Your task to perform on an android device: open a new tab in the chrome app Image 0: 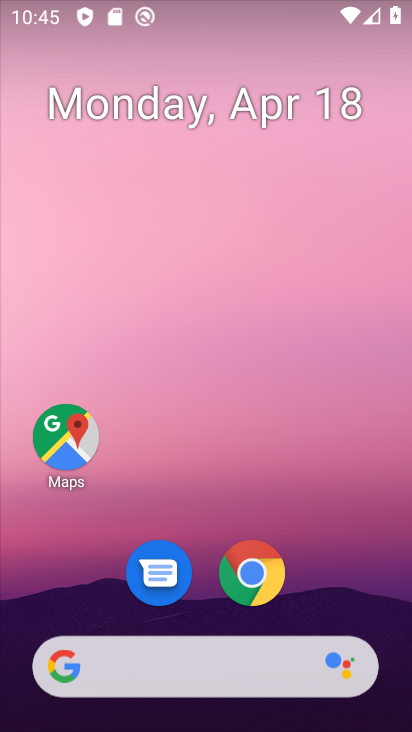
Step 0: click (258, 569)
Your task to perform on an android device: open a new tab in the chrome app Image 1: 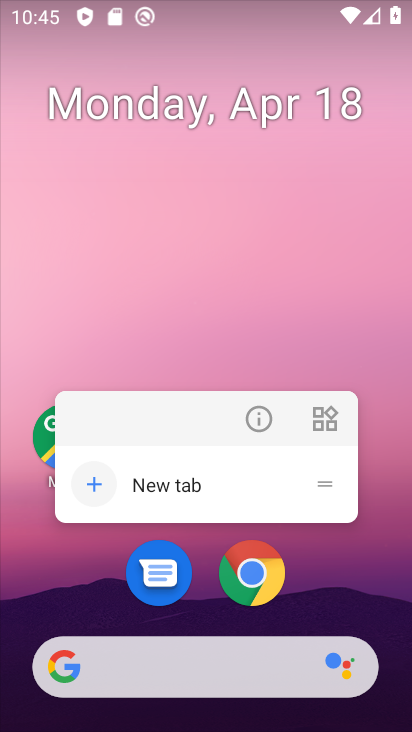
Step 1: click (349, 581)
Your task to perform on an android device: open a new tab in the chrome app Image 2: 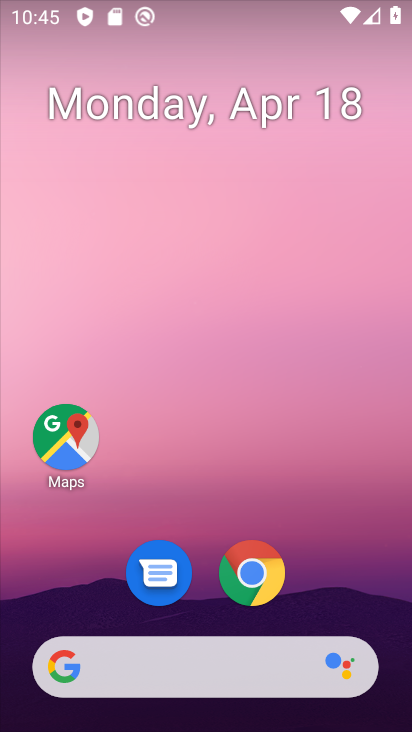
Step 2: drag from (366, 581) to (340, 63)
Your task to perform on an android device: open a new tab in the chrome app Image 3: 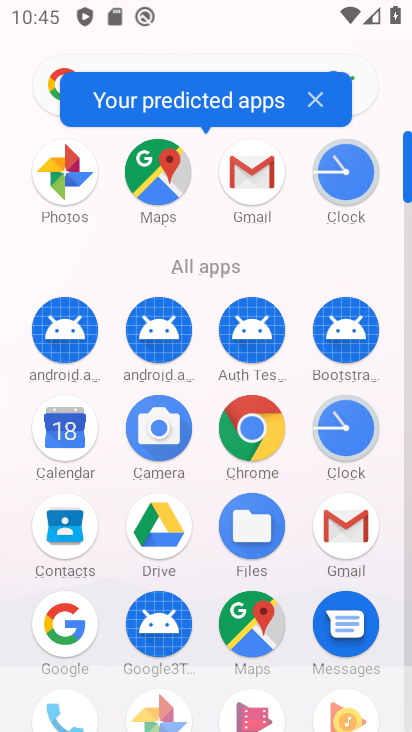
Step 3: click (256, 432)
Your task to perform on an android device: open a new tab in the chrome app Image 4: 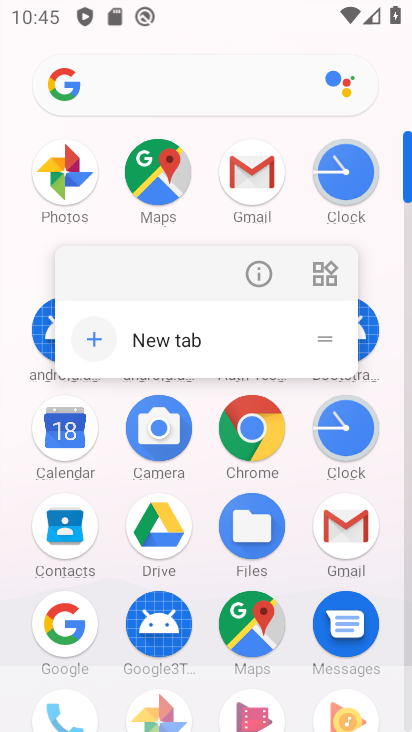
Step 4: click (267, 435)
Your task to perform on an android device: open a new tab in the chrome app Image 5: 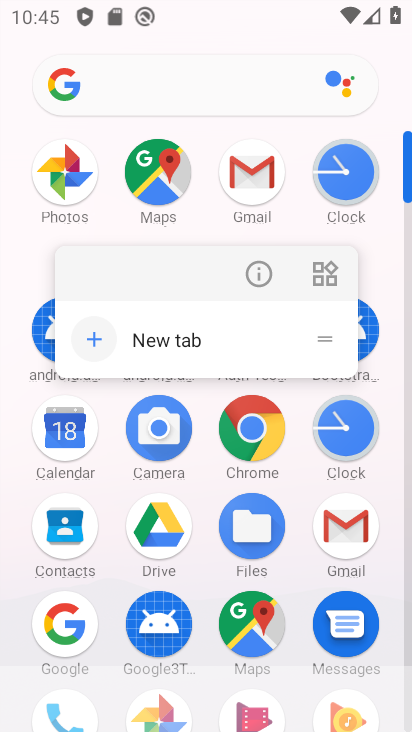
Step 5: click (267, 435)
Your task to perform on an android device: open a new tab in the chrome app Image 6: 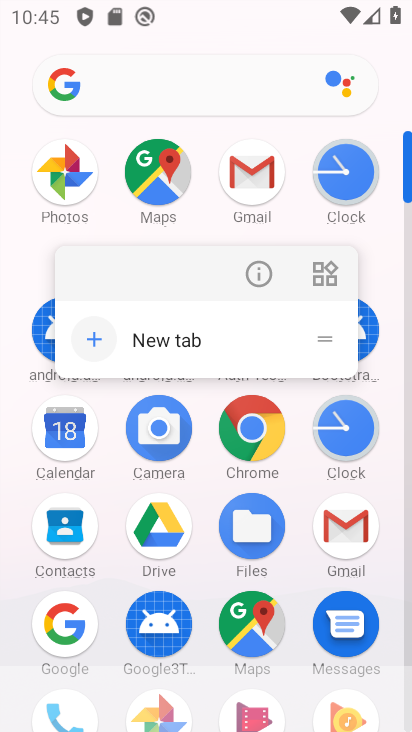
Step 6: click (267, 435)
Your task to perform on an android device: open a new tab in the chrome app Image 7: 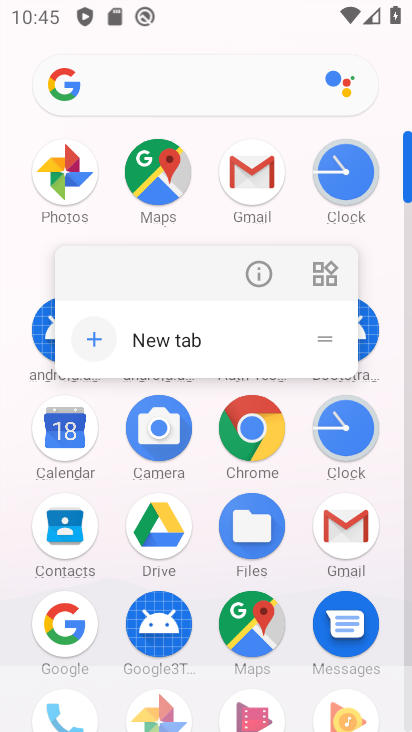
Step 7: click (237, 441)
Your task to perform on an android device: open a new tab in the chrome app Image 8: 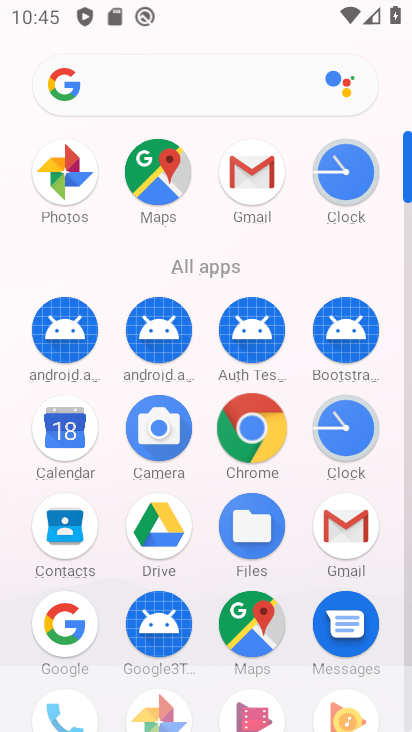
Step 8: click (237, 441)
Your task to perform on an android device: open a new tab in the chrome app Image 9: 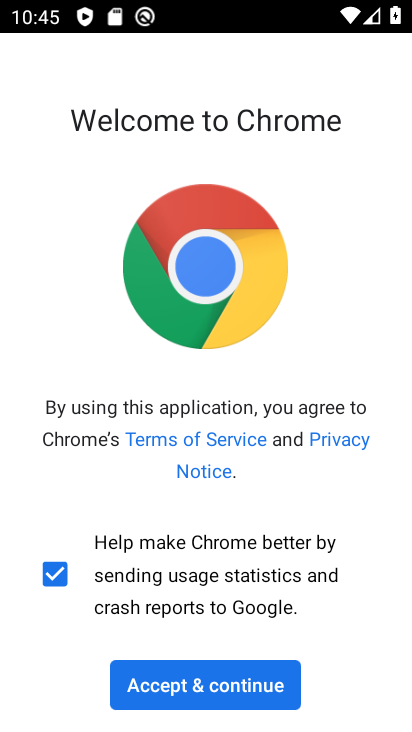
Step 9: click (194, 676)
Your task to perform on an android device: open a new tab in the chrome app Image 10: 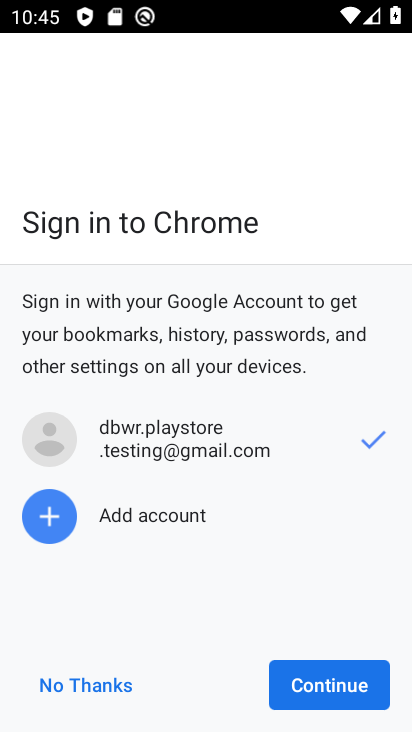
Step 10: click (341, 687)
Your task to perform on an android device: open a new tab in the chrome app Image 11: 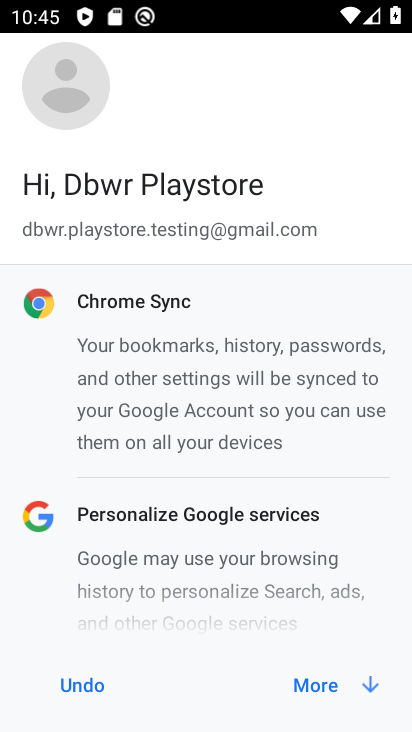
Step 11: click (341, 687)
Your task to perform on an android device: open a new tab in the chrome app Image 12: 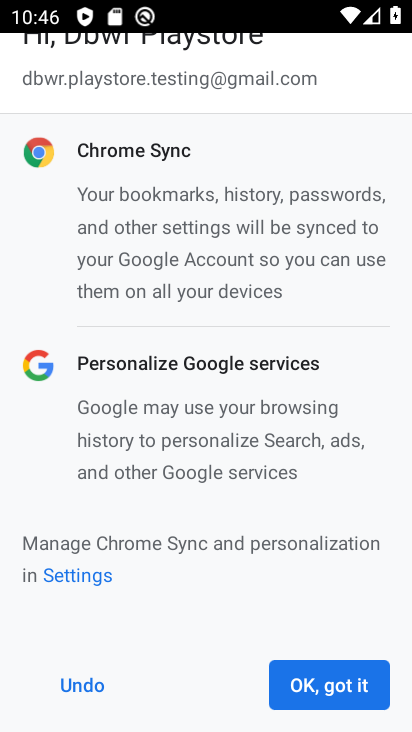
Step 12: click (342, 684)
Your task to perform on an android device: open a new tab in the chrome app Image 13: 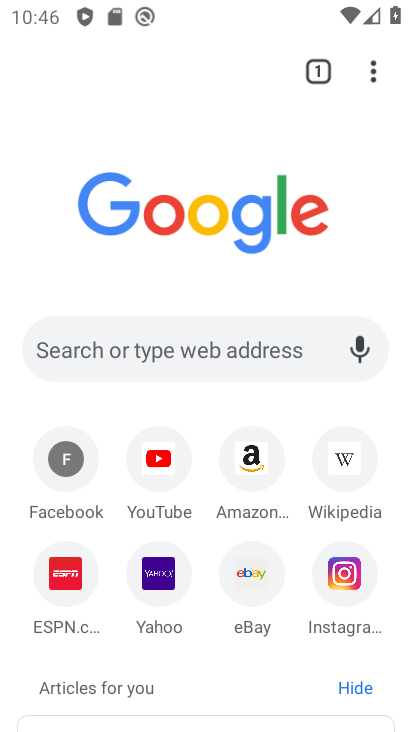
Step 13: task complete